Your task to perform on an android device: turn off notifications settings in the gmail app Image 0: 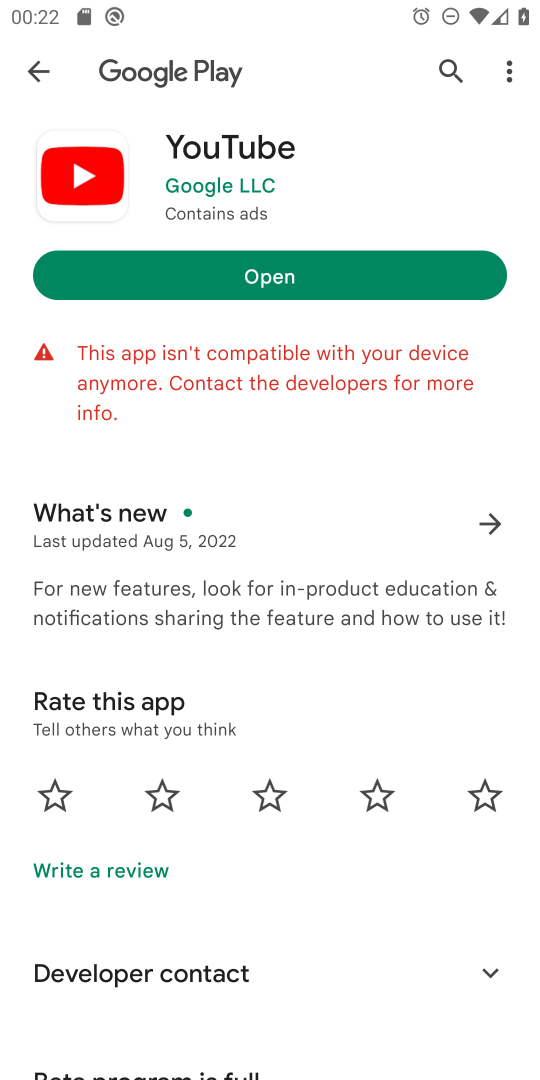
Step 0: press home button
Your task to perform on an android device: turn off notifications settings in the gmail app Image 1: 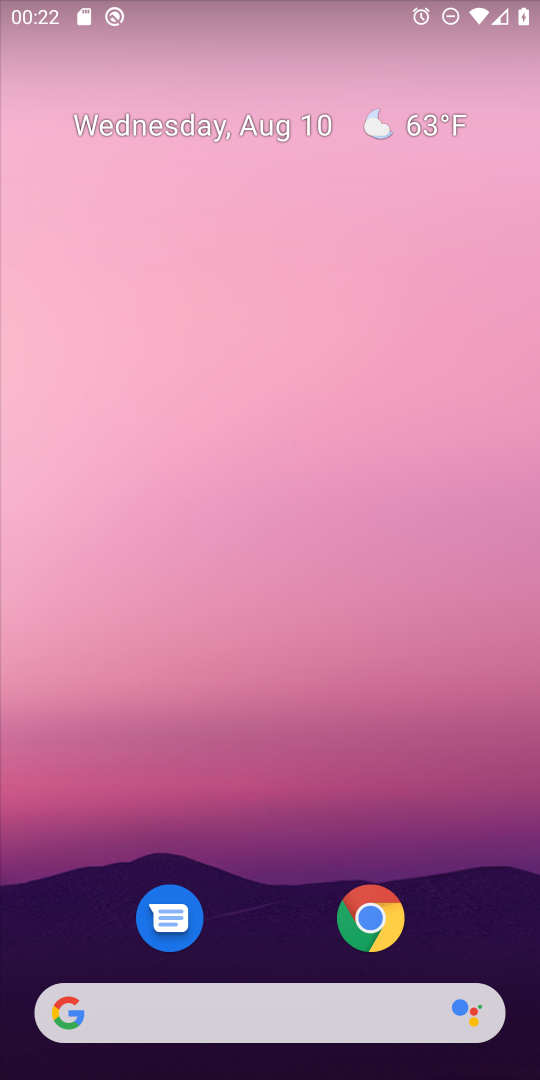
Step 1: drag from (270, 886) to (322, 55)
Your task to perform on an android device: turn off notifications settings in the gmail app Image 2: 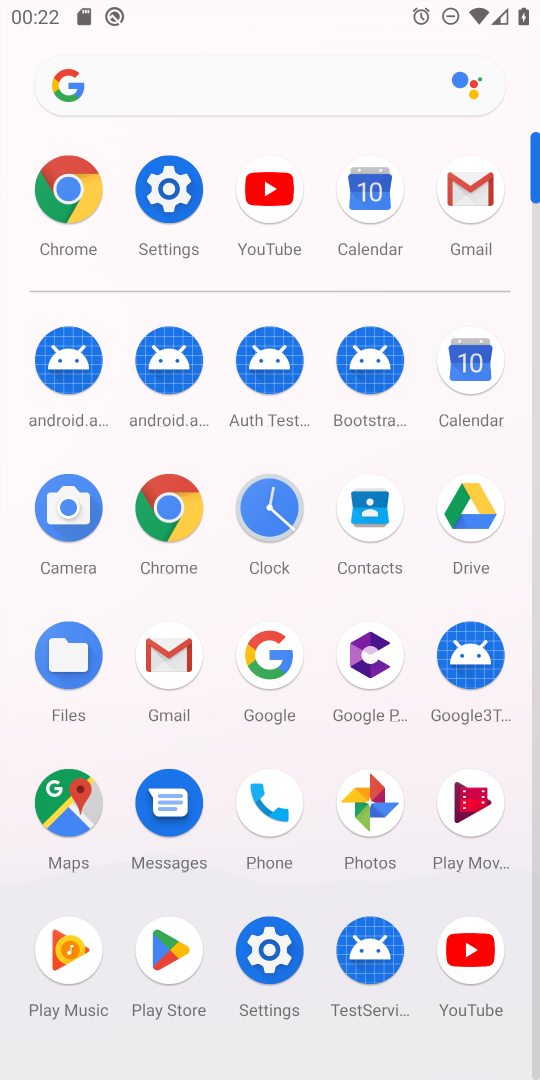
Step 2: click (171, 665)
Your task to perform on an android device: turn off notifications settings in the gmail app Image 3: 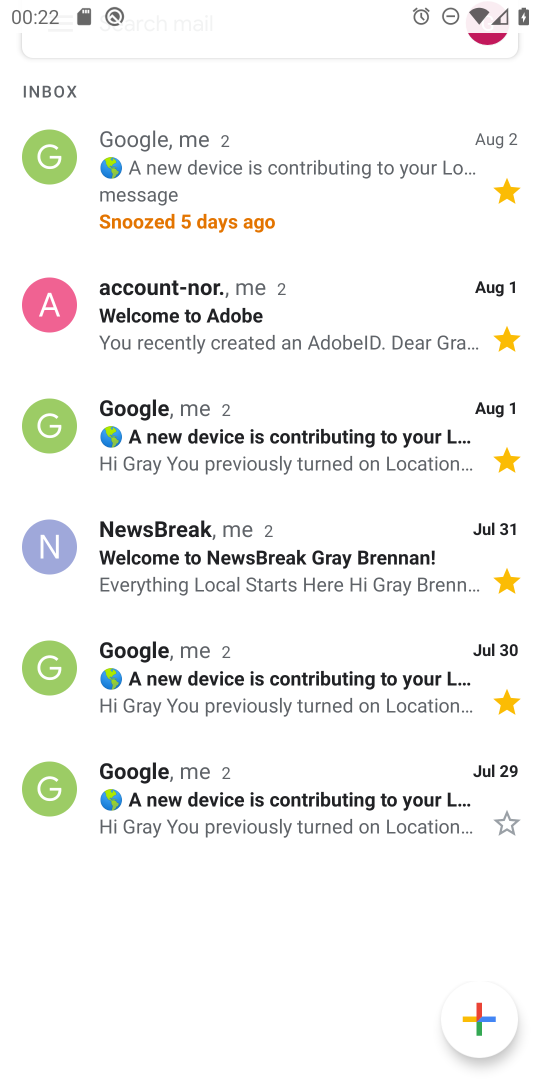
Step 3: drag from (169, 140) to (217, 899)
Your task to perform on an android device: turn off notifications settings in the gmail app Image 4: 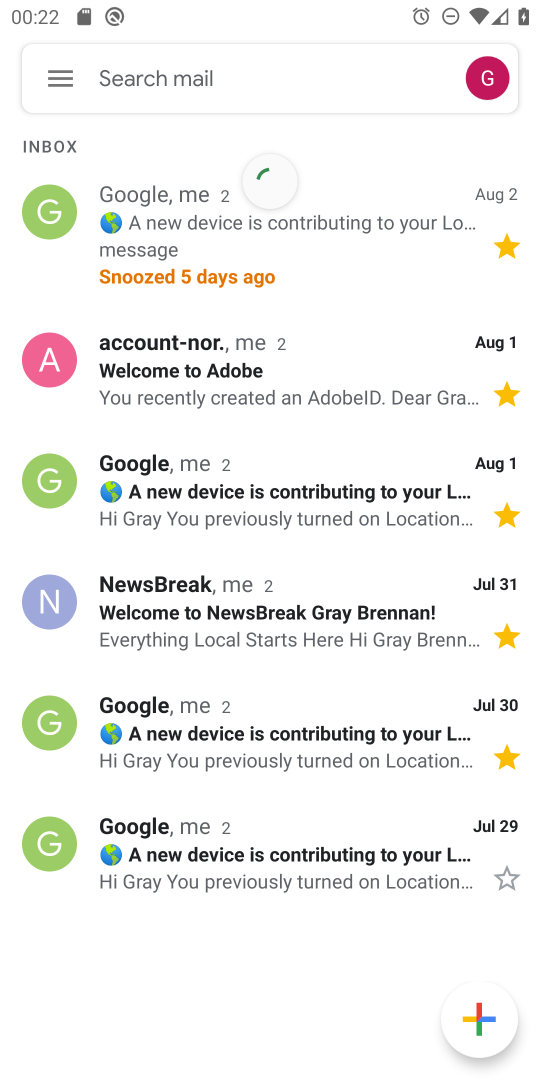
Step 4: click (54, 76)
Your task to perform on an android device: turn off notifications settings in the gmail app Image 5: 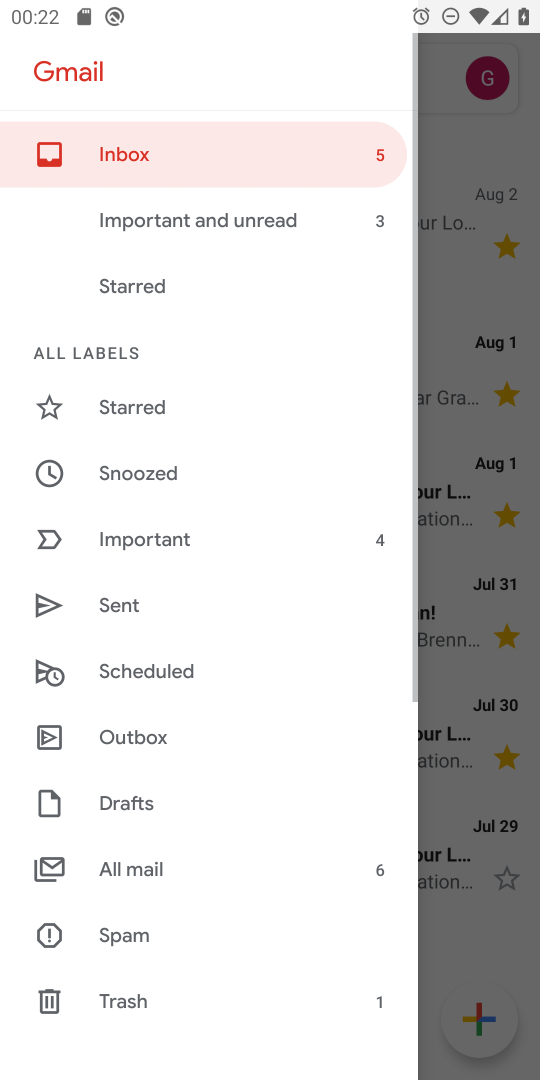
Step 5: drag from (158, 907) to (208, 201)
Your task to perform on an android device: turn off notifications settings in the gmail app Image 6: 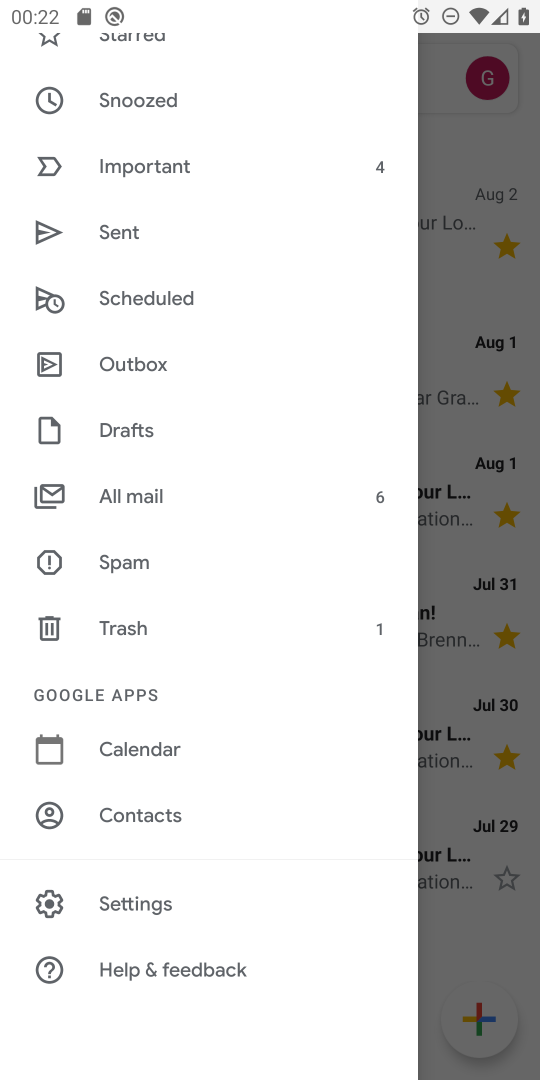
Step 6: click (133, 918)
Your task to perform on an android device: turn off notifications settings in the gmail app Image 7: 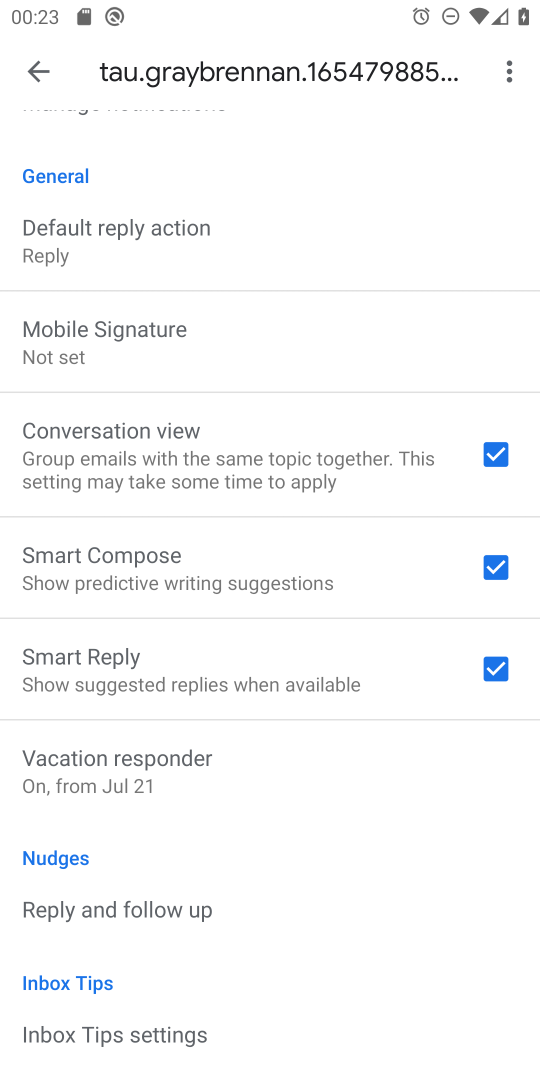
Step 7: drag from (229, 310) to (243, 836)
Your task to perform on an android device: turn off notifications settings in the gmail app Image 8: 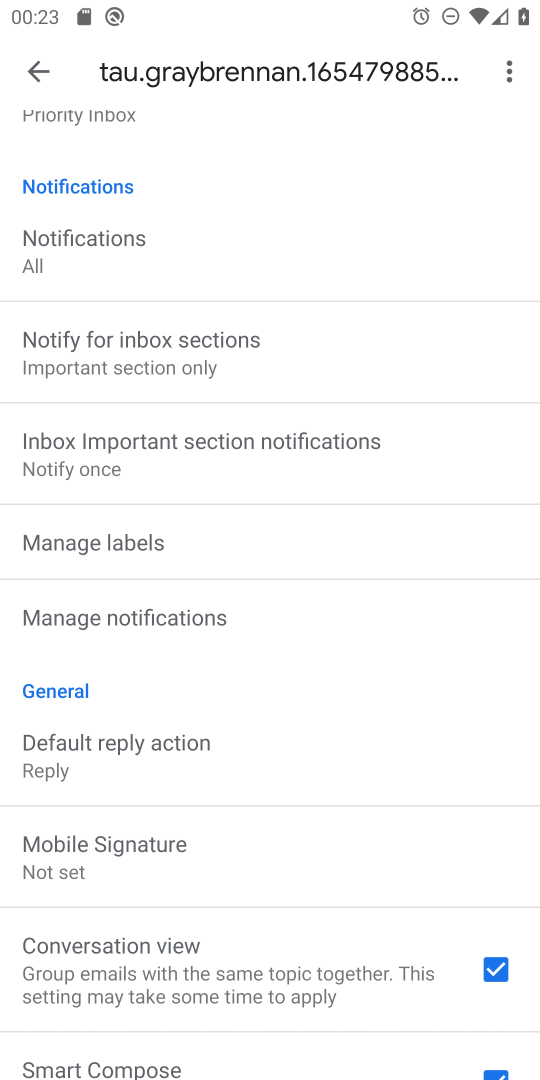
Step 8: click (159, 619)
Your task to perform on an android device: turn off notifications settings in the gmail app Image 9: 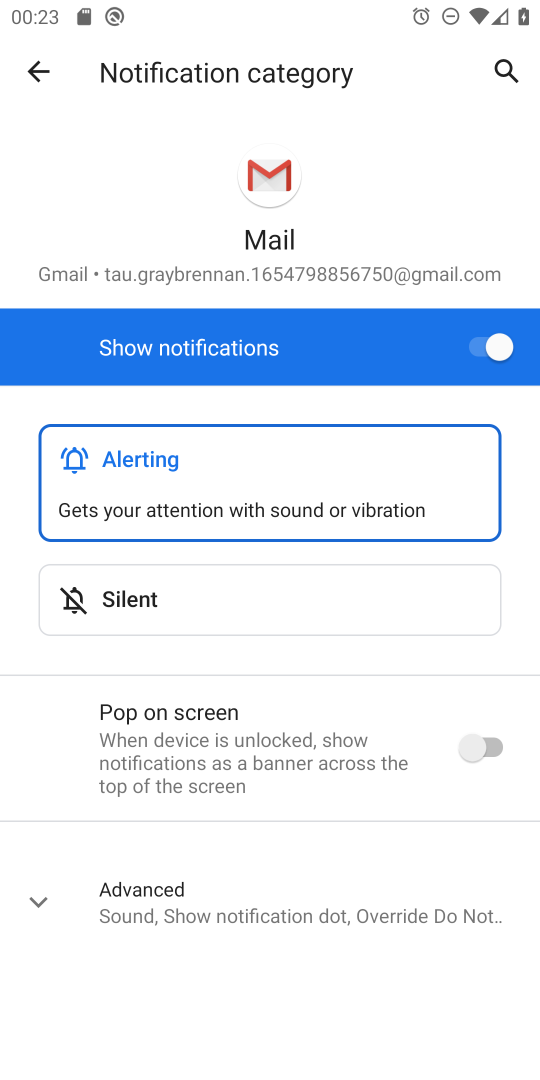
Step 9: click (490, 360)
Your task to perform on an android device: turn off notifications settings in the gmail app Image 10: 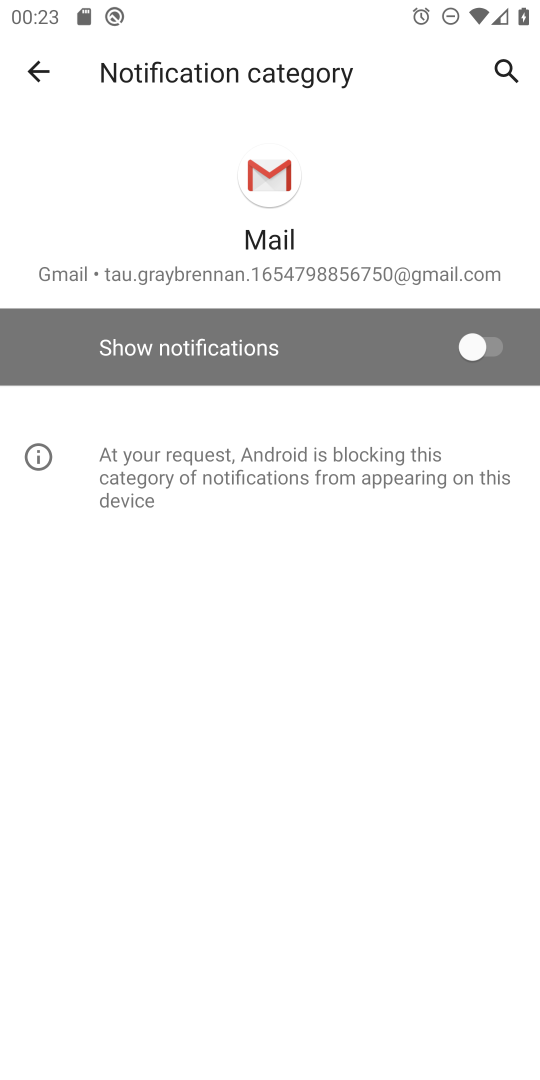
Step 10: task complete